Your task to perform on an android device: Open network settings Image 0: 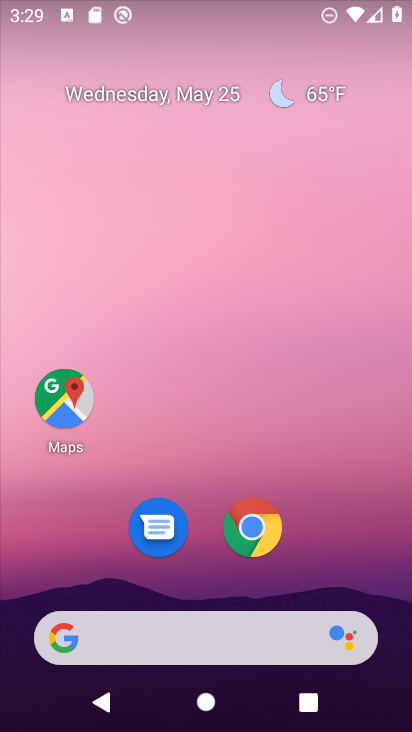
Step 0: drag from (307, 557) to (386, 8)
Your task to perform on an android device: Open network settings Image 1: 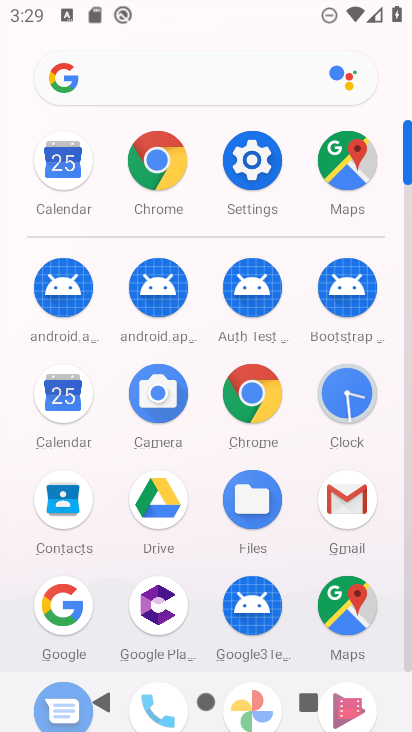
Step 1: click (255, 177)
Your task to perform on an android device: Open network settings Image 2: 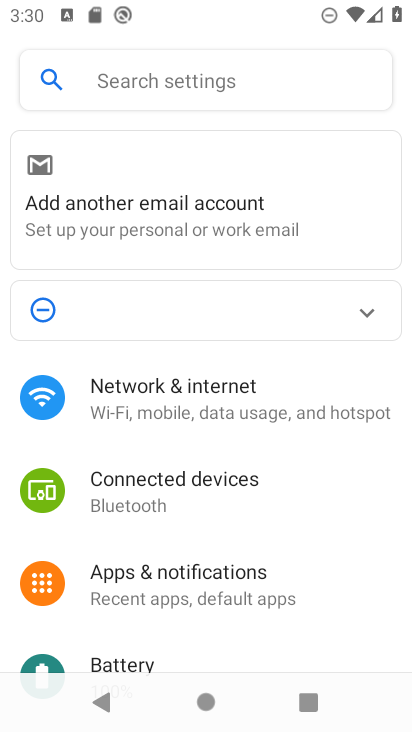
Step 2: click (226, 414)
Your task to perform on an android device: Open network settings Image 3: 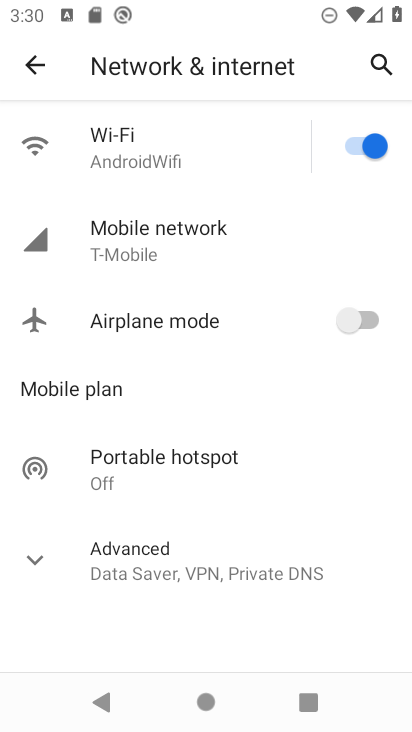
Step 3: click (162, 249)
Your task to perform on an android device: Open network settings Image 4: 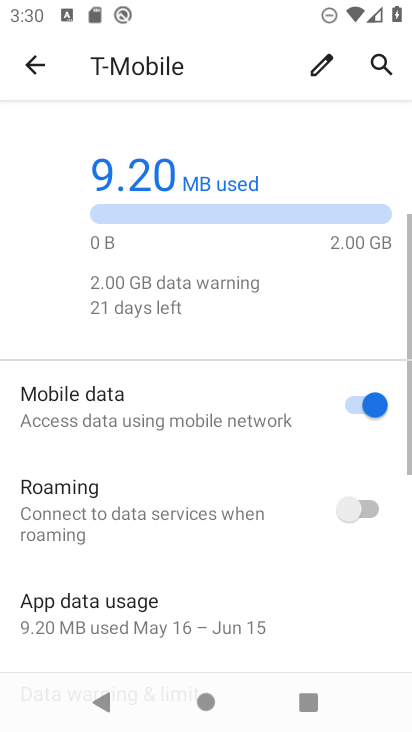
Step 4: task complete